Your task to perform on an android device: Go to privacy settings Image 0: 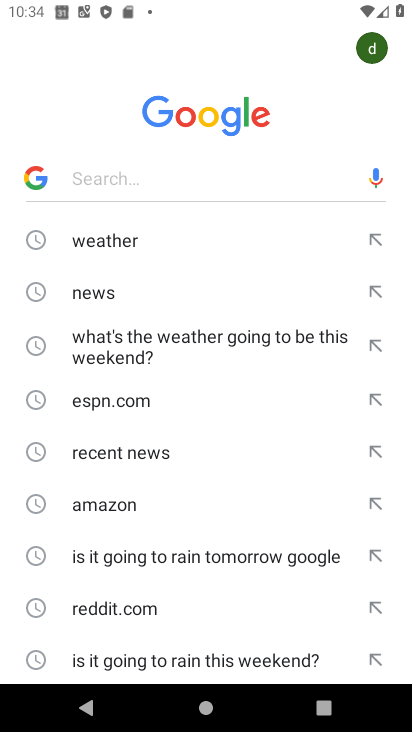
Step 0: press home button
Your task to perform on an android device: Go to privacy settings Image 1: 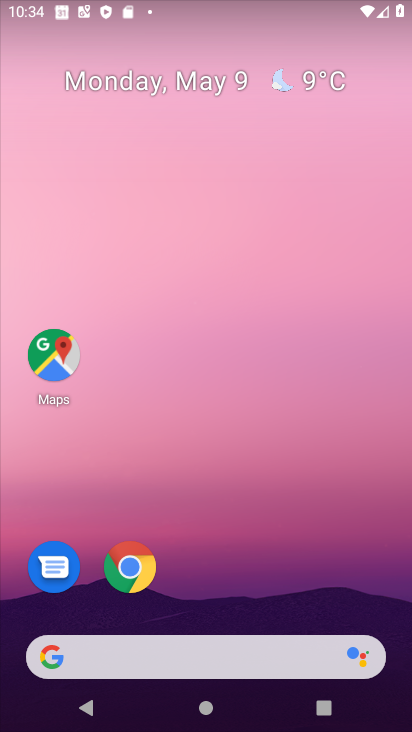
Step 1: drag from (218, 591) to (228, 106)
Your task to perform on an android device: Go to privacy settings Image 2: 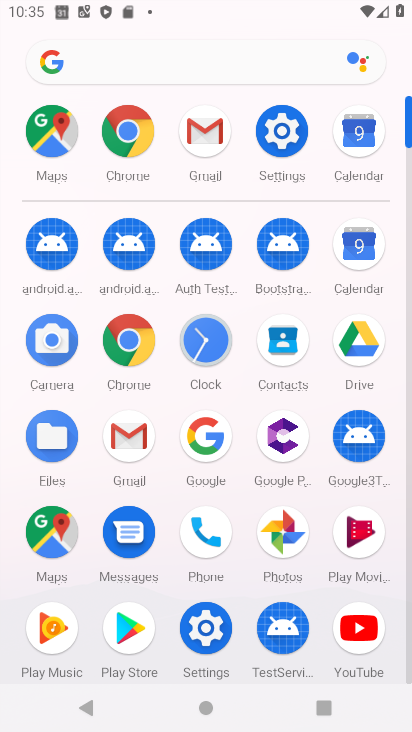
Step 2: click (260, 140)
Your task to perform on an android device: Go to privacy settings Image 3: 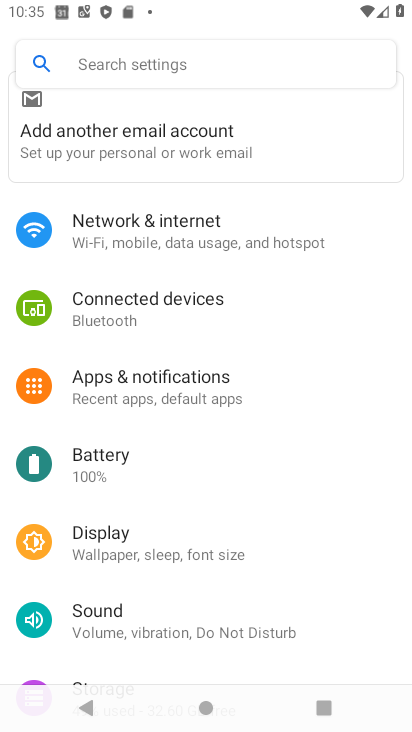
Step 3: drag from (180, 618) to (210, 223)
Your task to perform on an android device: Go to privacy settings Image 4: 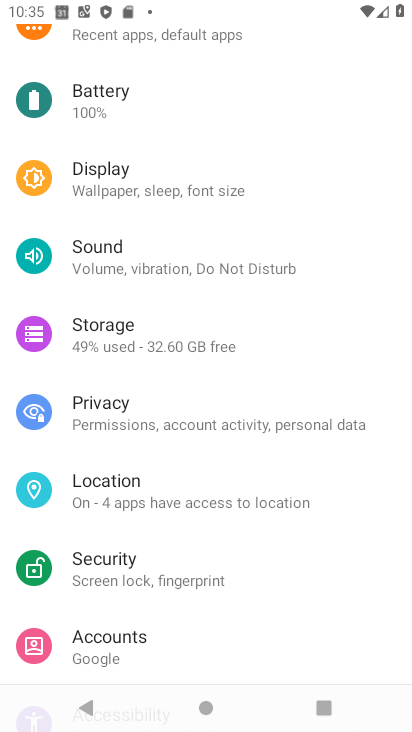
Step 4: click (138, 407)
Your task to perform on an android device: Go to privacy settings Image 5: 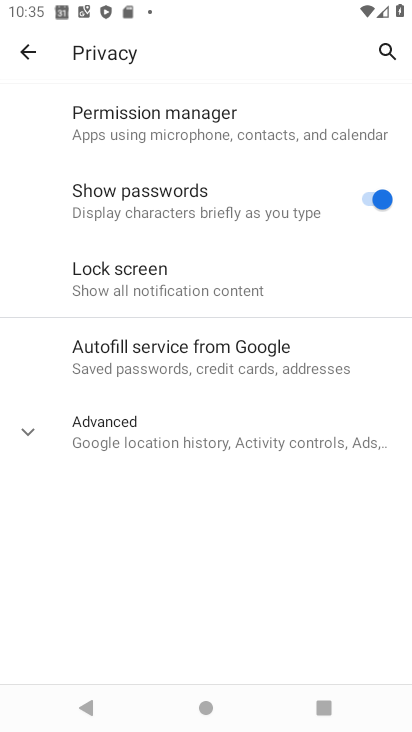
Step 5: click (22, 437)
Your task to perform on an android device: Go to privacy settings Image 6: 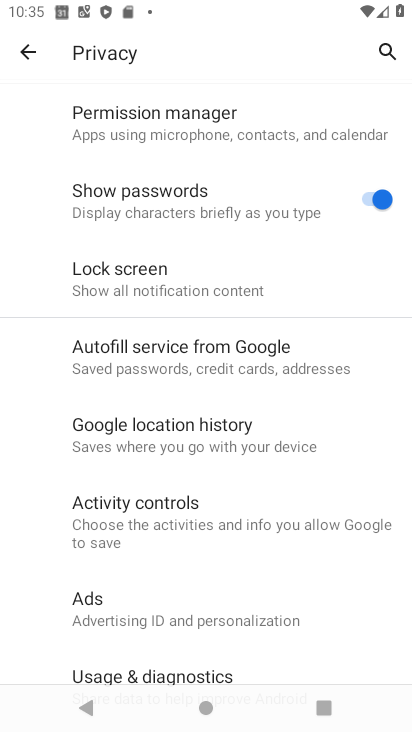
Step 6: task complete